Your task to perform on an android device: snooze an email in the gmail app Image 0: 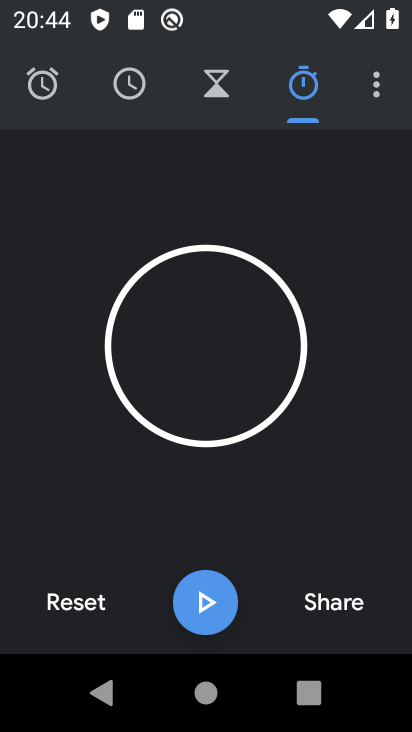
Step 0: press back button
Your task to perform on an android device: snooze an email in the gmail app Image 1: 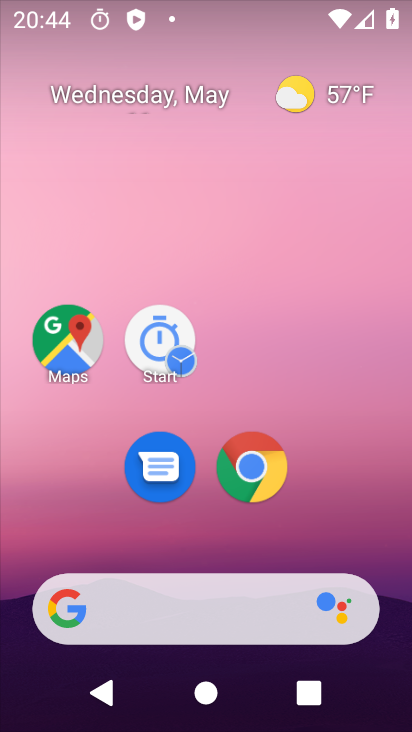
Step 1: drag from (252, 226) to (173, 26)
Your task to perform on an android device: snooze an email in the gmail app Image 2: 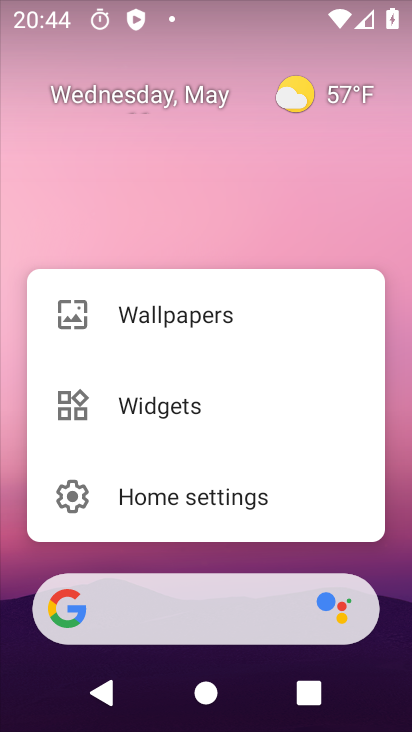
Step 2: click (87, 160)
Your task to perform on an android device: snooze an email in the gmail app Image 3: 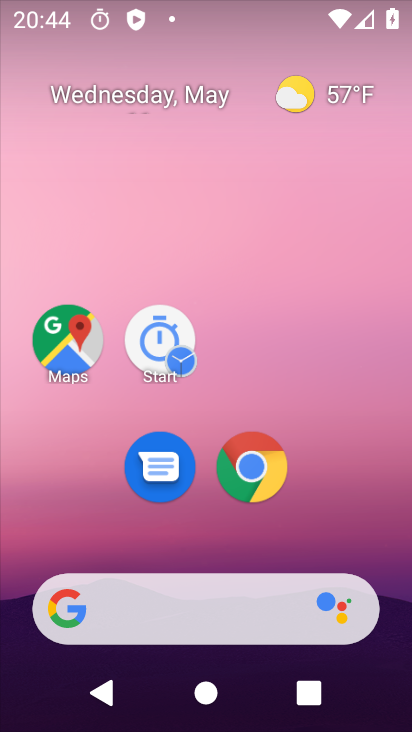
Step 3: drag from (354, 492) to (161, 0)
Your task to perform on an android device: snooze an email in the gmail app Image 4: 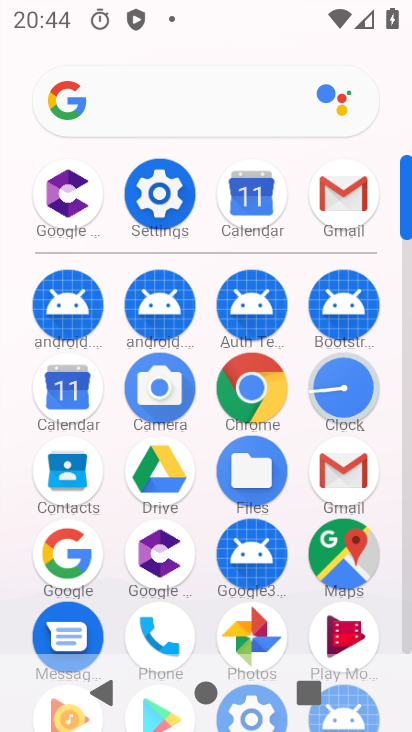
Step 4: click (359, 457)
Your task to perform on an android device: snooze an email in the gmail app Image 5: 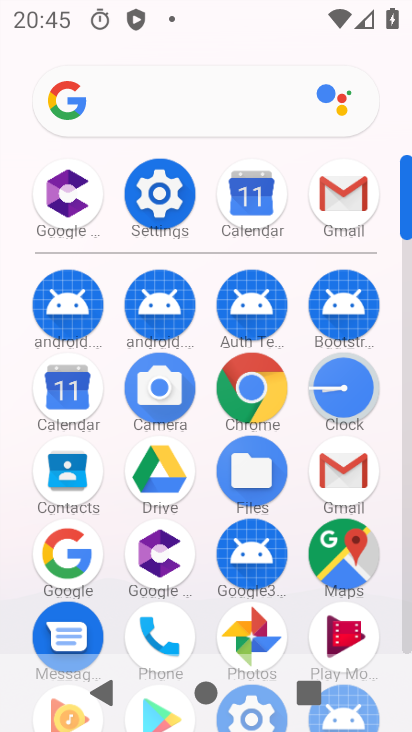
Step 5: click (359, 457)
Your task to perform on an android device: snooze an email in the gmail app Image 6: 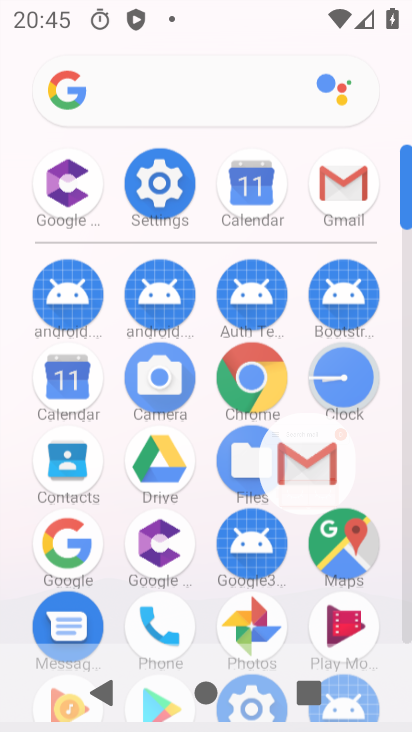
Step 6: click (359, 457)
Your task to perform on an android device: snooze an email in the gmail app Image 7: 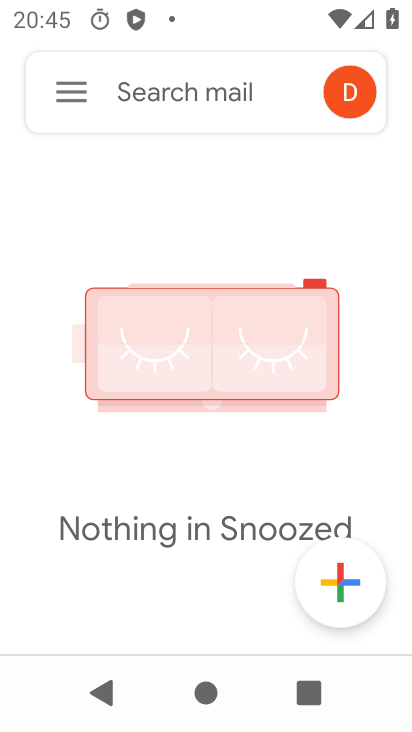
Step 7: click (359, 457)
Your task to perform on an android device: snooze an email in the gmail app Image 8: 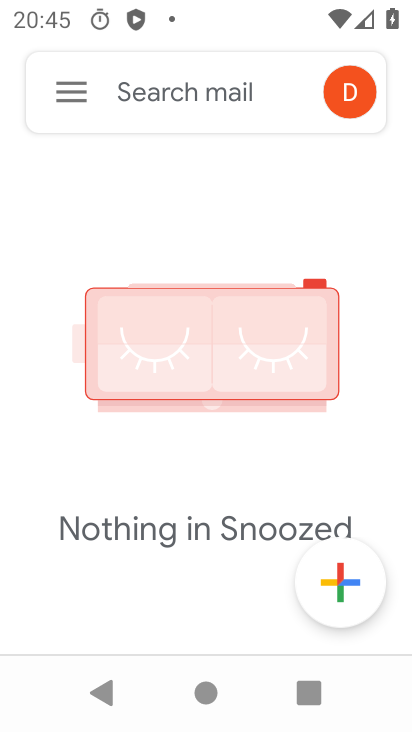
Step 8: click (66, 94)
Your task to perform on an android device: snooze an email in the gmail app Image 9: 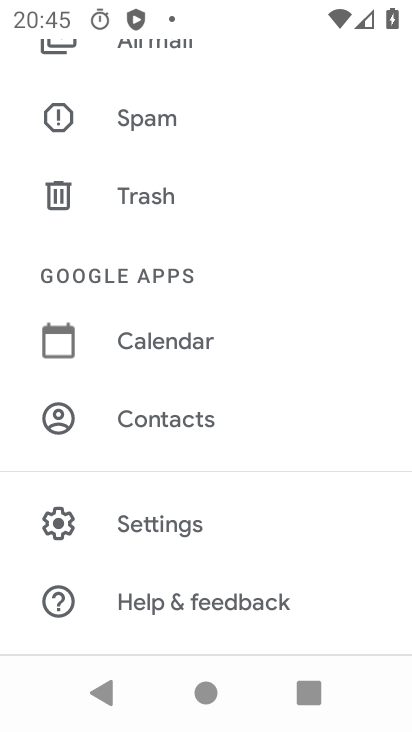
Step 9: drag from (176, 198) to (260, 582)
Your task to perform on an android device: snooze an email in the gmail app Image 10: 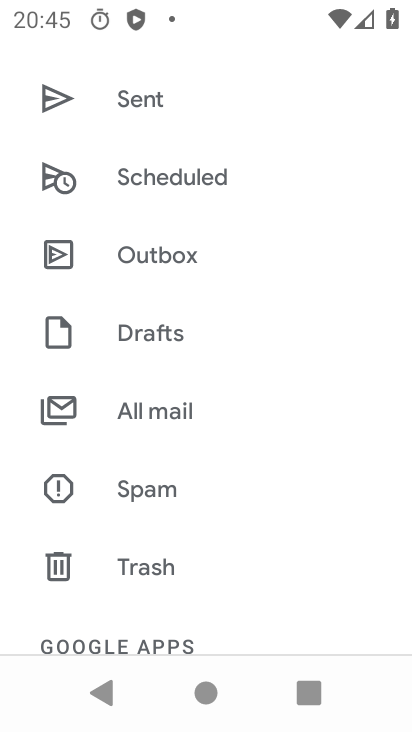
Step 10: click (163, 405)
Your task to perform on an android device: snooze an email in the gmail app Image 11: 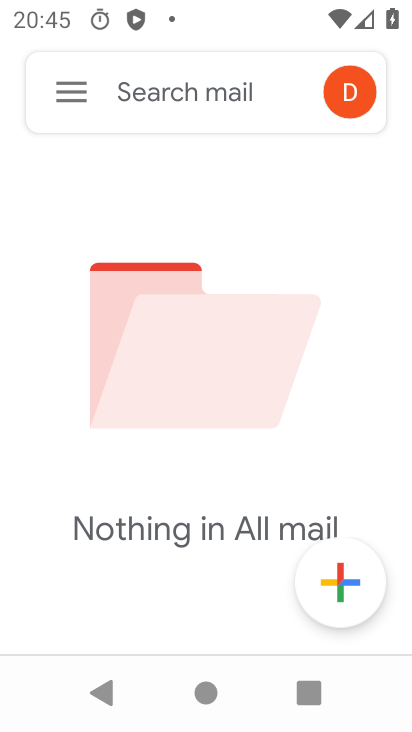
Step 11: task complete